Your task to perform on an android device: Open battery settings Image 0: 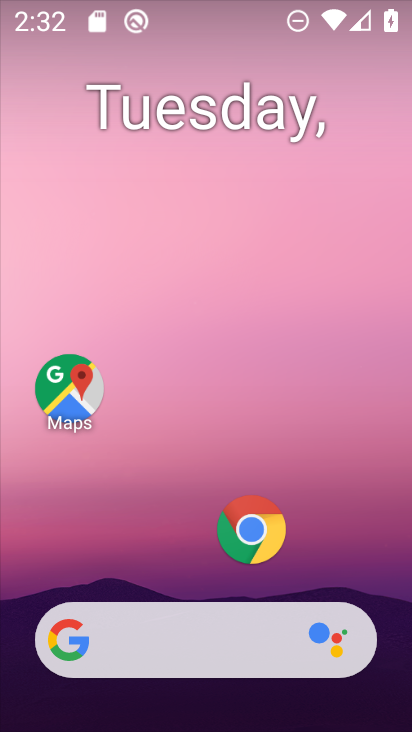
Step 0: drag from (232, 695) to (209, 382)
Your task to perform on an android device: Open battery settings Image 1: 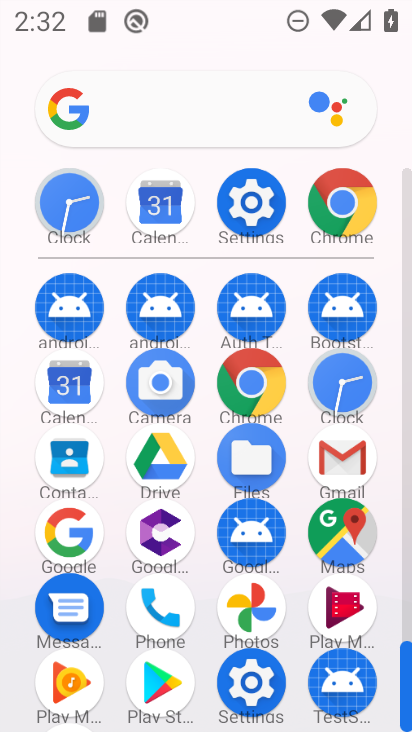
Step 1: click (248, 204)
Your task to perform on an android device: Open battery settings Image 2: 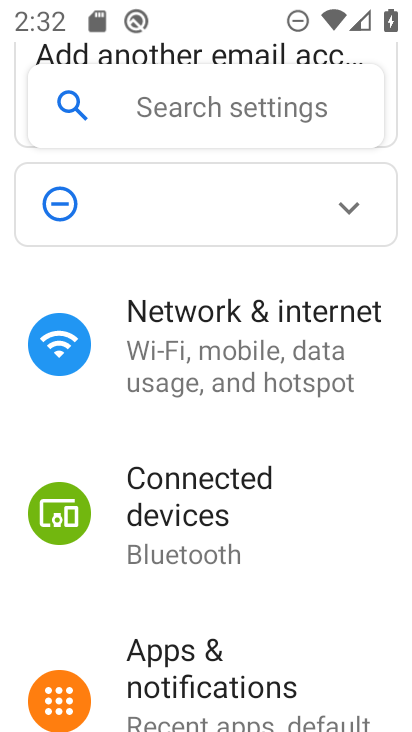
Step 2: drag from (125, 557) to (155, 326)
Your task to perform on an android device: Open battery settings Image 3: 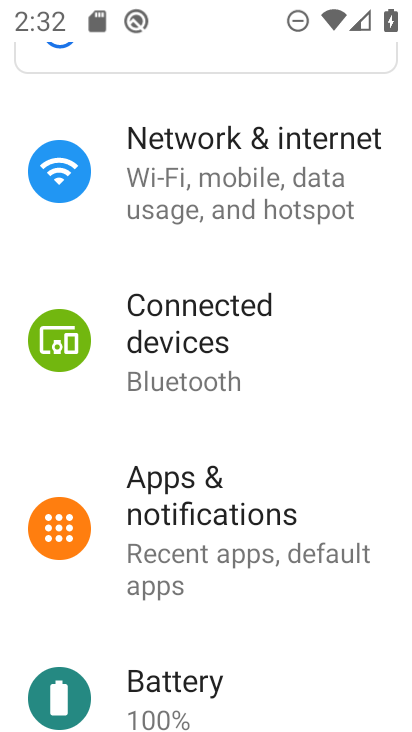
Step 3: click (161, 689)
Your task to perform on an android device: Open battery settings Image 4: 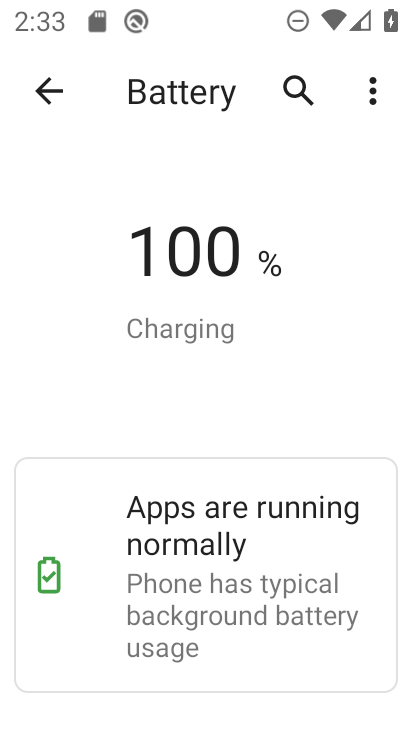
Step 4: task complete